Your task to perform on an android device: set default search engine in the chrome app Image 0: 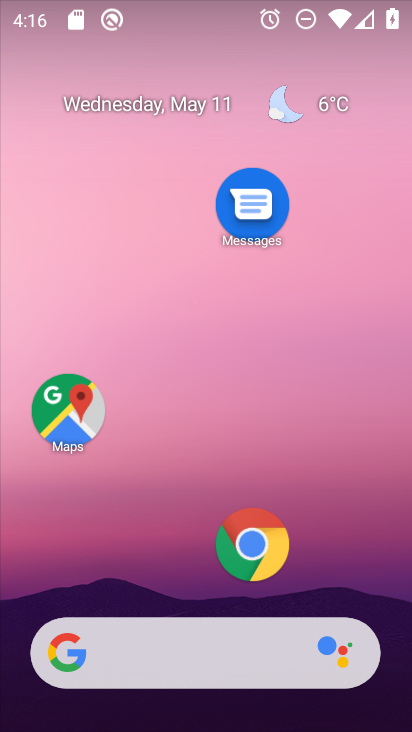
Step 0: click (258, 539)
Your task to perform on an android device: set default search engine in the chrome app Image 1: 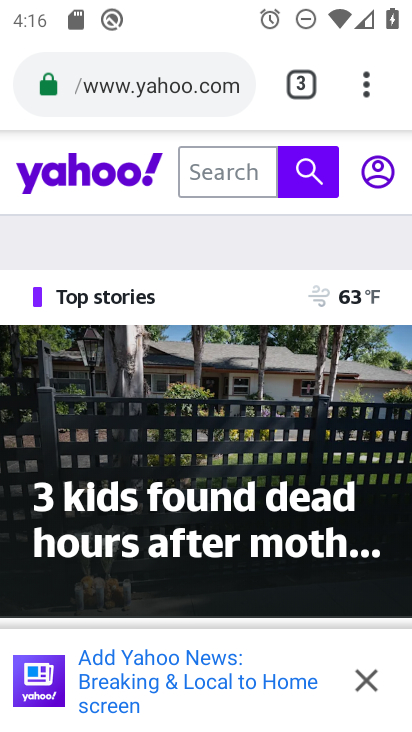
Step 1: drag from (367, 82) to (120, 596)
Your task to perform on an android device: set default search engine in the chrome app Image 2: 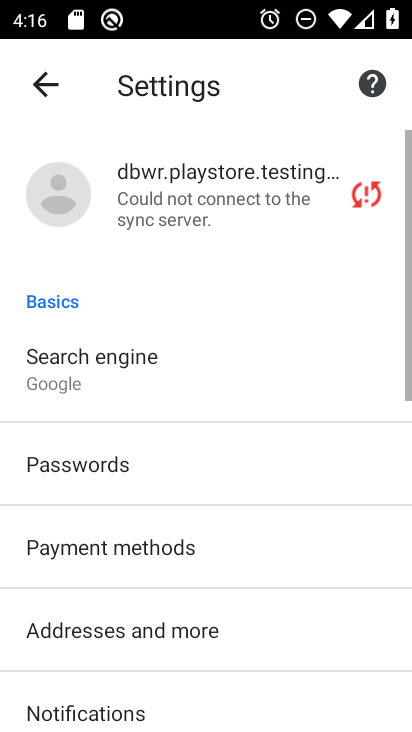
Step 2: click (68, 356)
Your task to perform on an android device: set default search engine in the chrome app Image 3: 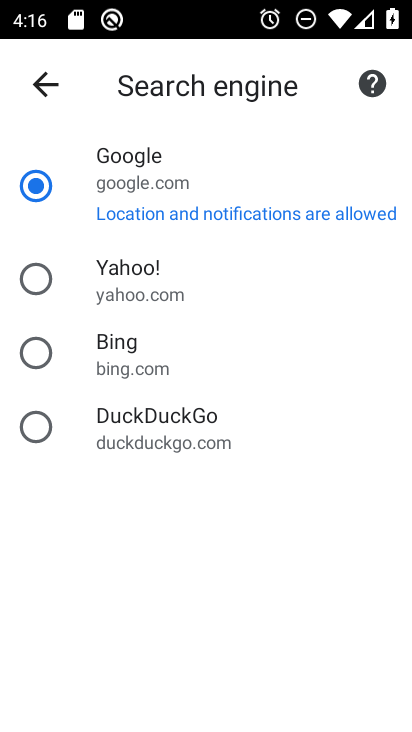
Step 3: click (166, 283)
Your task to perform on an android device: set default search engine in the chrome app Image 4: 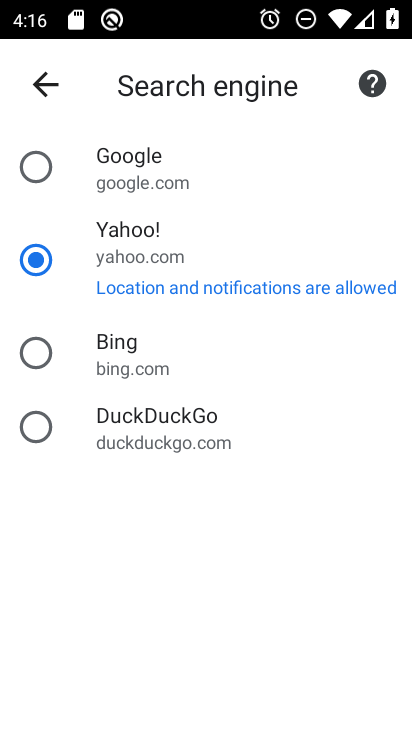
Step 4: task complete